Your task to perform on an android device: delete location history Image 0: 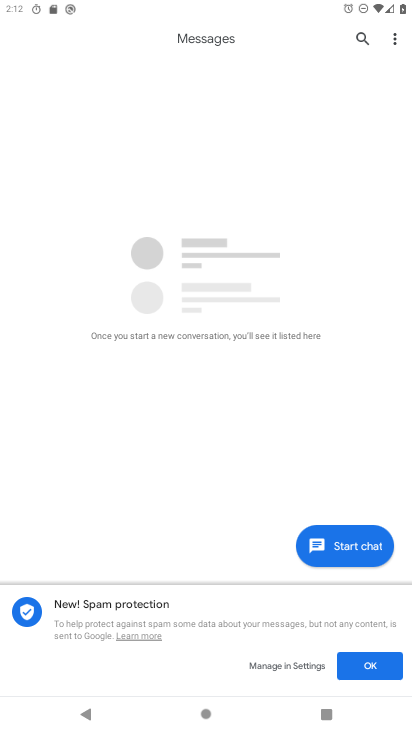
Step 0: press home button
Your task to perform on an android device: delete location history Image 1: 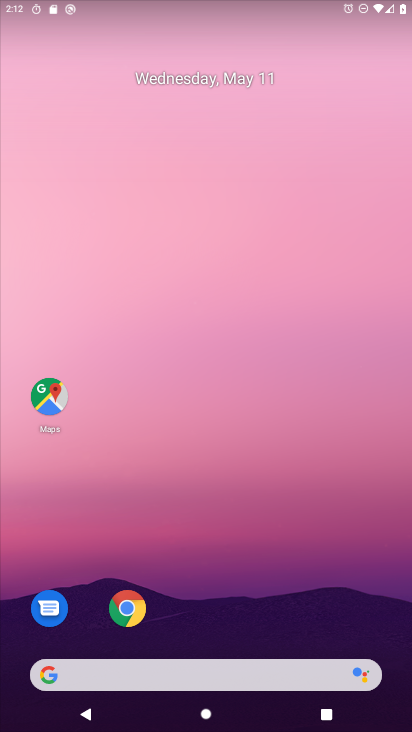
Step 1: drag from (306, 539) to (321, 14)
Your task to perform on an android device: delete location history Image 2: 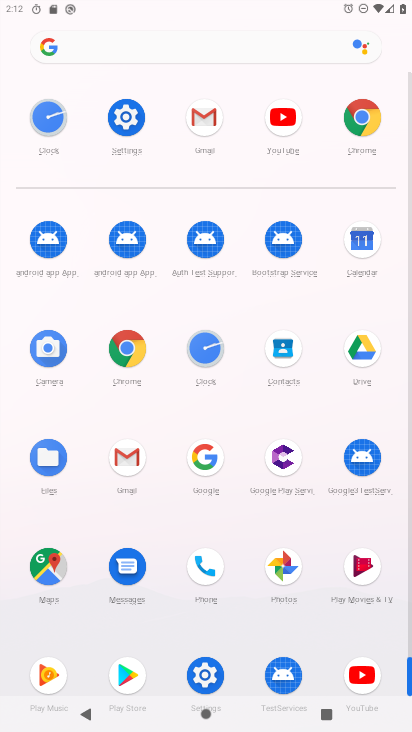
Step 2: click (127, 138)
Your task to perform on an android device: delete location history Image 3: 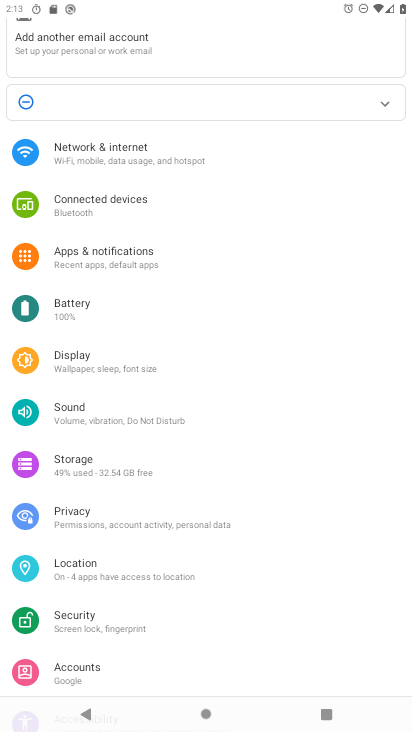
Step 3: drag from (117, 532) to (119, 346)
Your task to perform on an android device: delete location history Image 4: 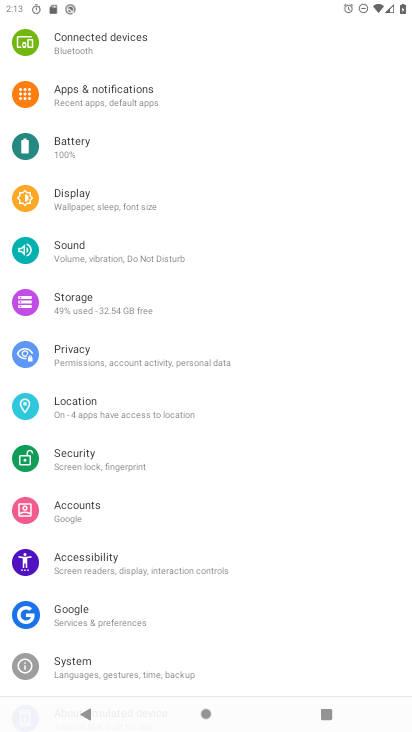
Step 4: click (119, 401)
Your task to perform on an android device: delete location history Image 5: 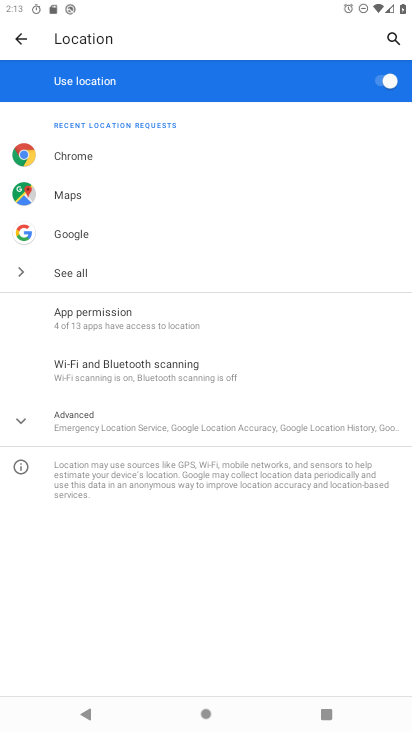
Step 5: click (126, 424)
Your task to perform on an android device: delete location history Image 6: 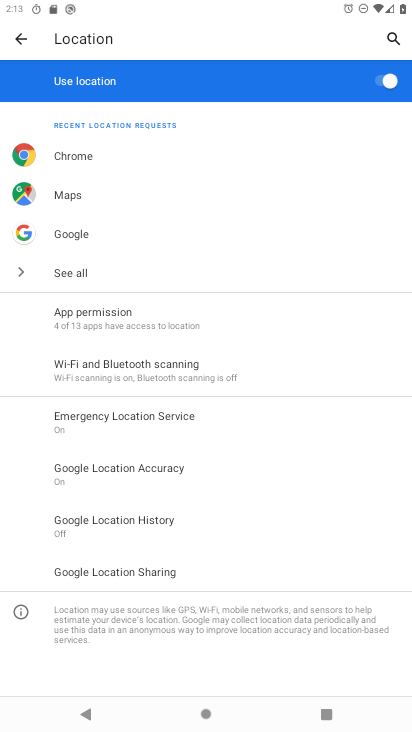
Step 6: click (177, 522)
Your task to perform on an android device: delete location history Image 7: 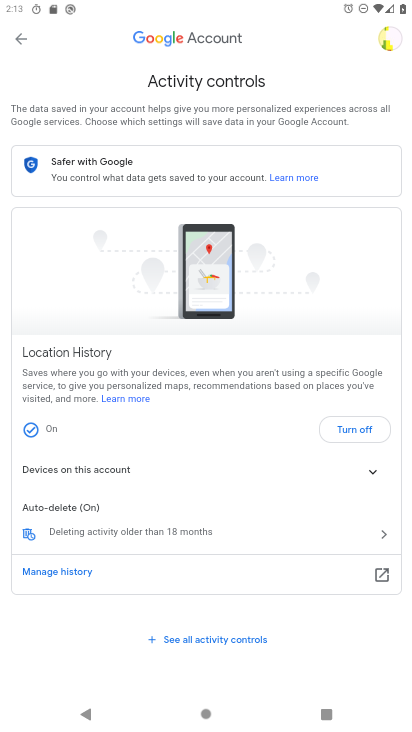
Step 7: click (151, 529)
Your task to perform on an android device: delete location history Image 8: 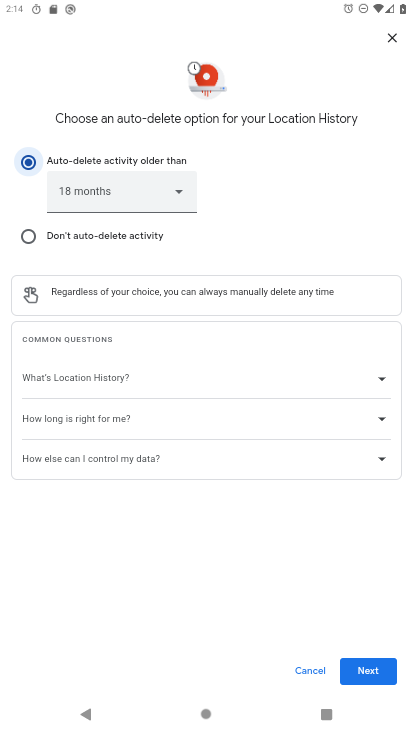
Step 8: click (365, 673)
Your task to perform on an android device: delete location history Image 9: 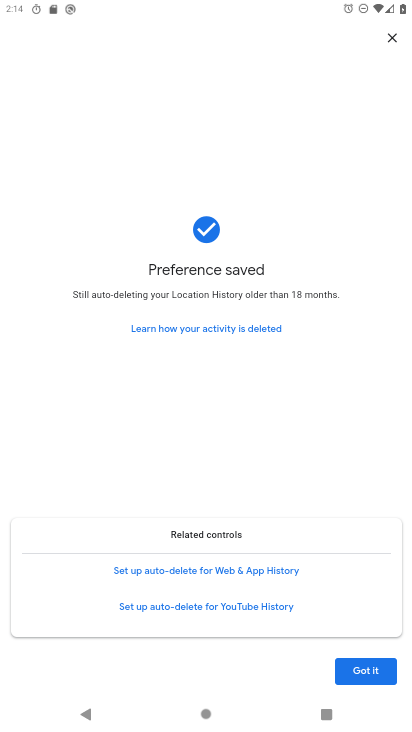
Step 9: click (357, 672)
Your task to perform on an android device: delete location history Image 10: 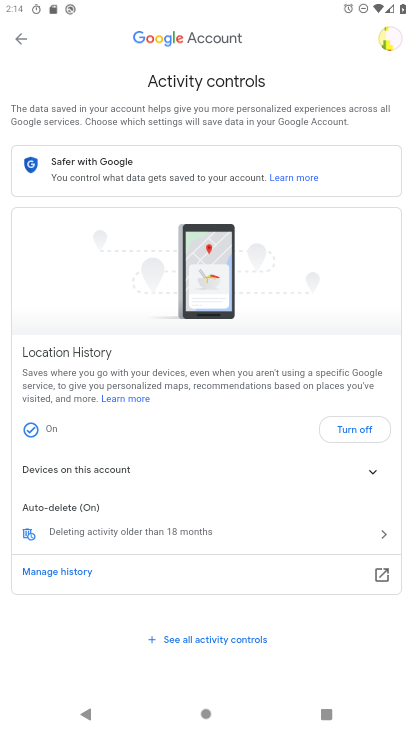
Step 10: task complete